Your task to perform on an android device: turn off airplane mode Image 0: 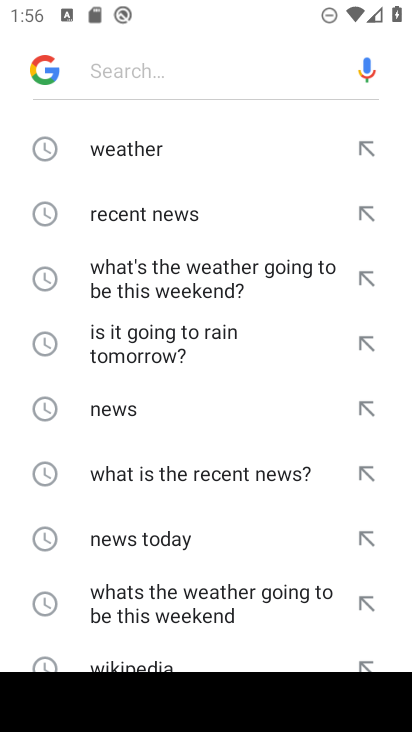
Step 0: press home button
Your task to perform on an android device: turn off airplane mode Image 1: 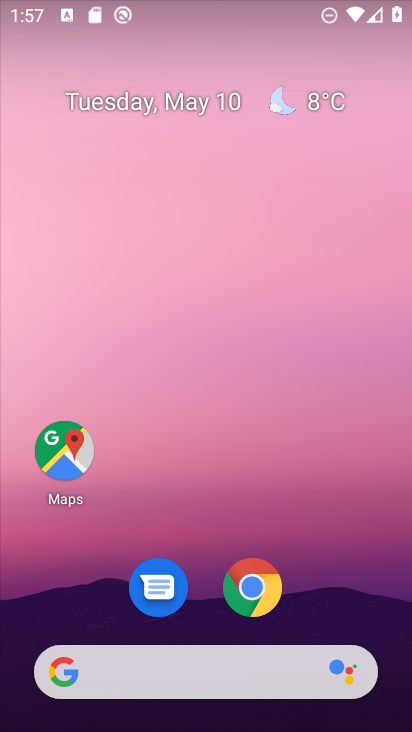
Step 1: drag from (398, 654) to (379, 153)
Your task to perform on an android device: turn off airplane mode Image 2: 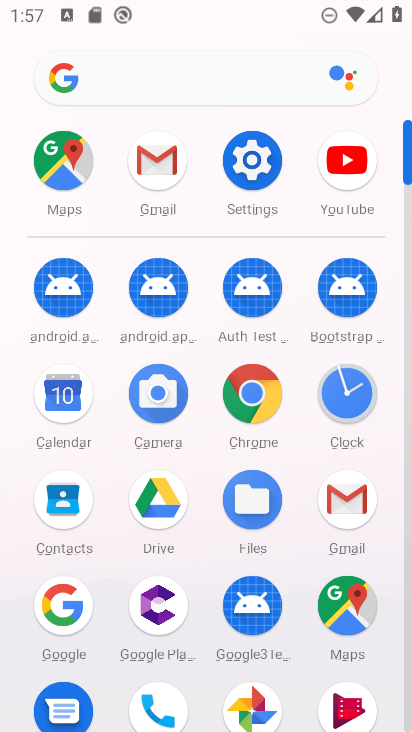
Step 2: click (268, 172)
Your task to perform on an android device: turn off airplane mode Image 3: 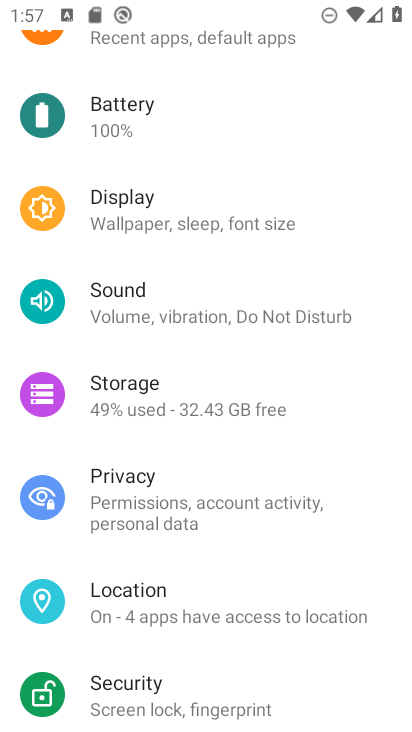
Step 3: drag from (318, 374) to (317, 460)
Your task to perform on an android device: turn off airplane mode Image 4: 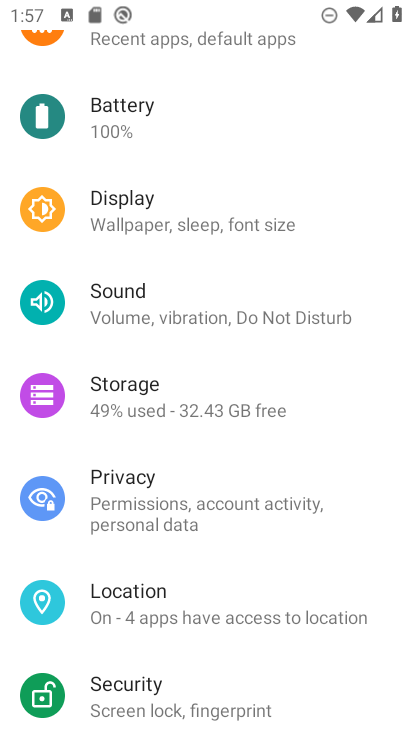
Step 4: drag from (358, 108) to (364, 548)
Your task to perform on an android device: turn off airplane mode Image 5: 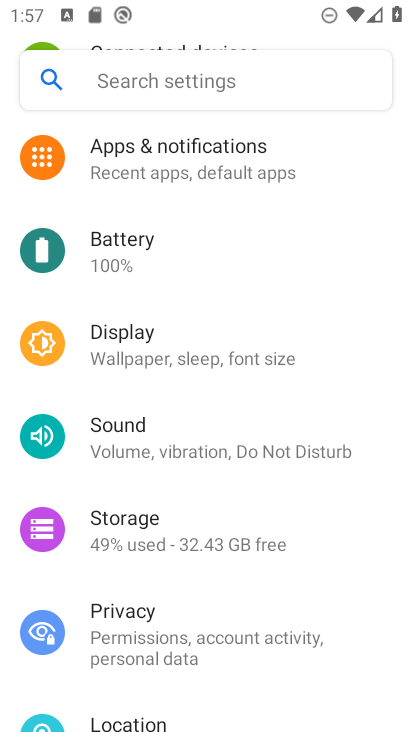
Step 5: click (344, 583)
Your task to perform on an android device: turn off airplane mode Image 6: 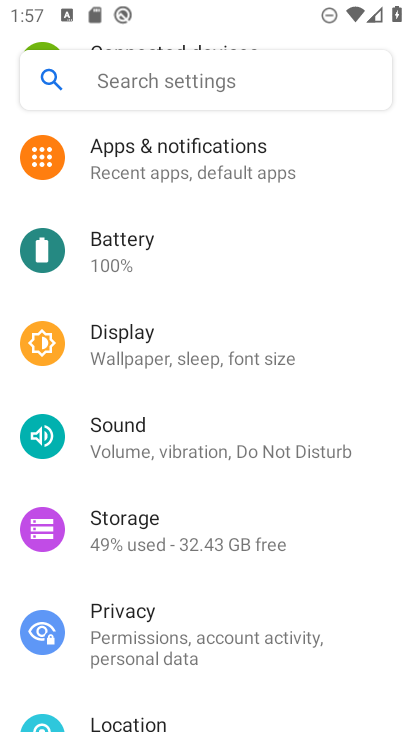
Step 6: drag from (378, 386) to (397, 617)
Your task to perform on an android device: turn off airplane mode Image 7: 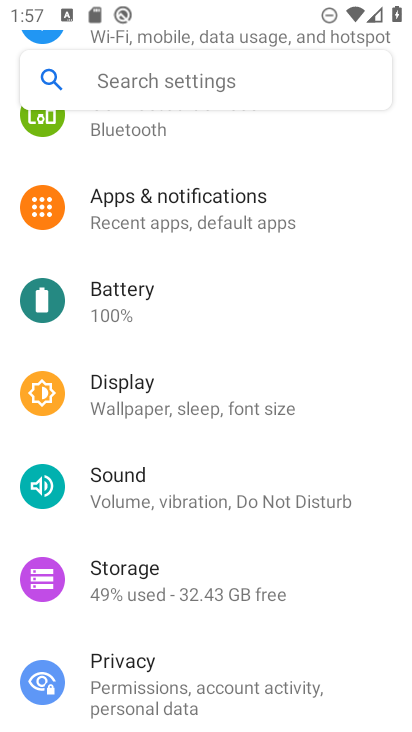
Step 7: drag from (330, 295) to (372, 640)
Your task to perform on an android device: turn off airplane mode Image 8: 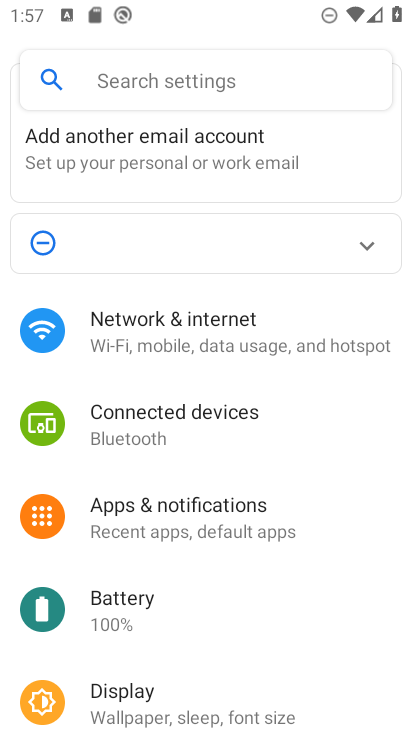
Step 8: click (135, 343)
Your task to perform on an android device: turn off airplane mode Image 9: 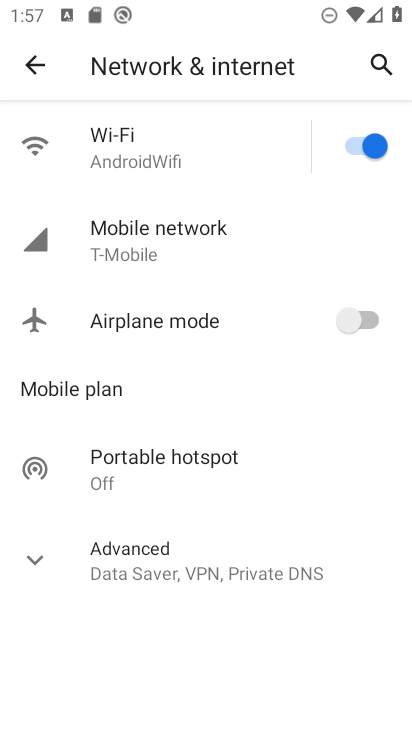
Step 9: task complete